Your task to perform on an android device: Go to ESPN.com Image 0: 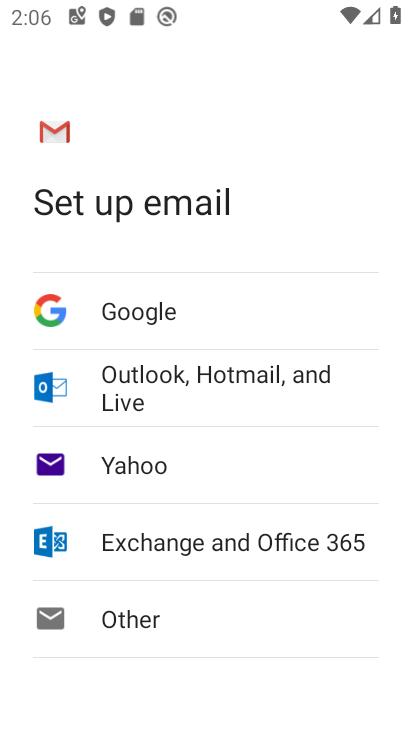
Step 0: press home button
Your task to perform on an android device: Go to ESPN.com Image 1: 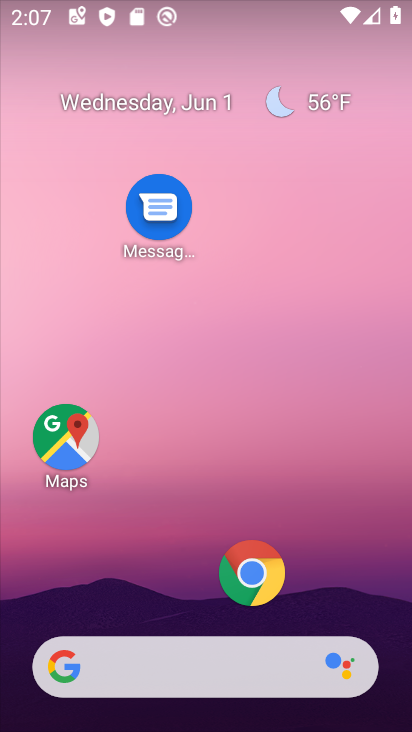
Step 1: drag from (208, 445) to (257, 208)
Your task to perform on an android device: Go to ESPN.com Image 2: 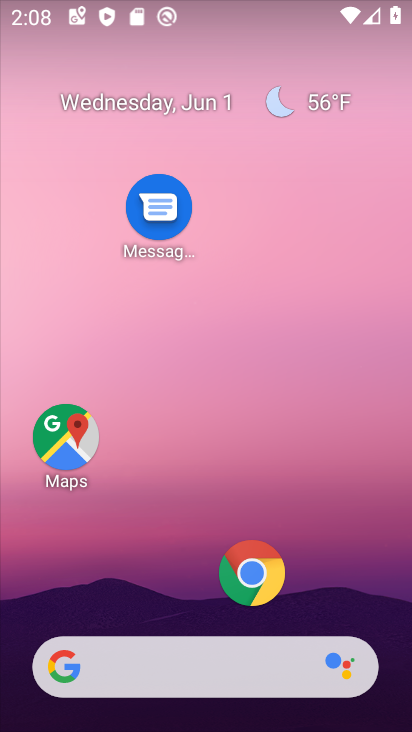
Step 2: click (252, 559)
Your task to perform on an android device: Go to ESPN.com Image 3: 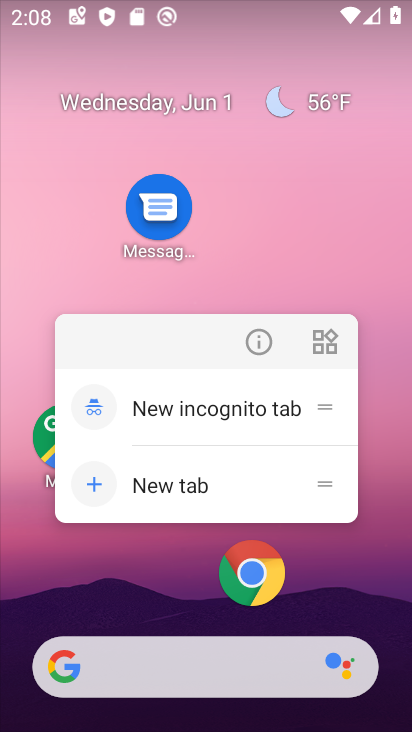
Step 3: click (267, 326)
Your task to perform on an android device: Go to ESPN.com Image 4: 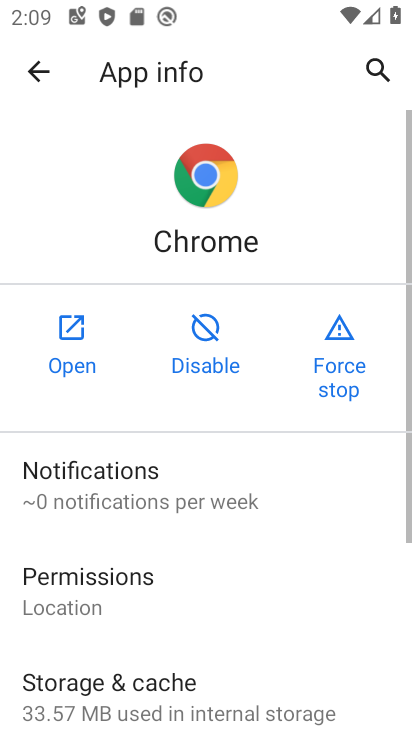
Step 4: click (62, 321)
Your task to perform on an android device: Go to ESPN.com Image 5: 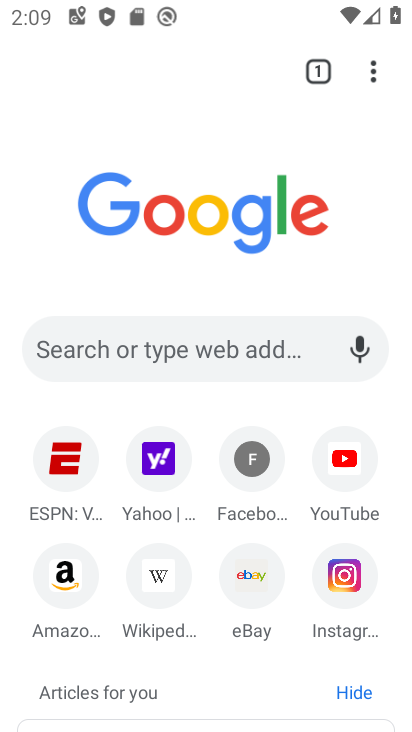
Step 5: click (58, 448)
Your task to perform on an android device: Go to ESPN.com Image 6: 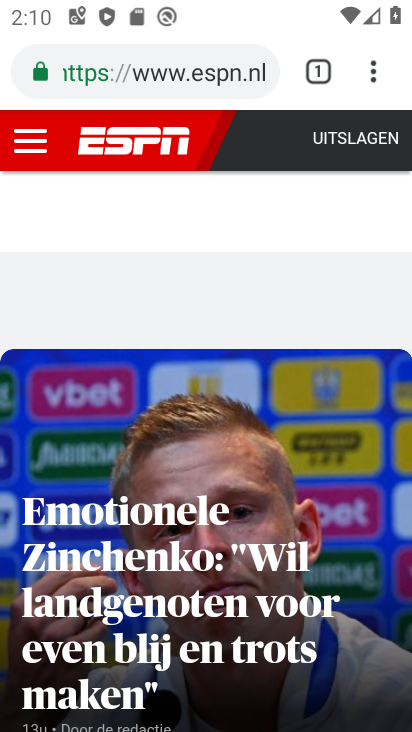
Step 6: task complete